Your task to perform on an android device: Go to Maps Image 0: 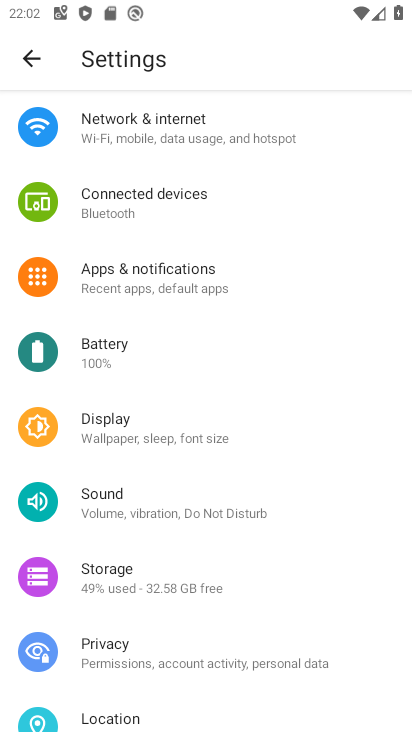
Step 0: press enter
Your task to perform on an android device: Go to Maps Image 1: 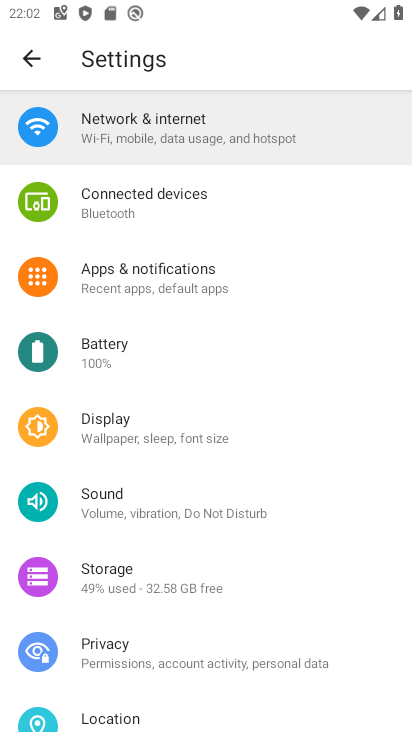
Step 1: press home button
Your task to perform on an android device: Go to Maps Image 2: 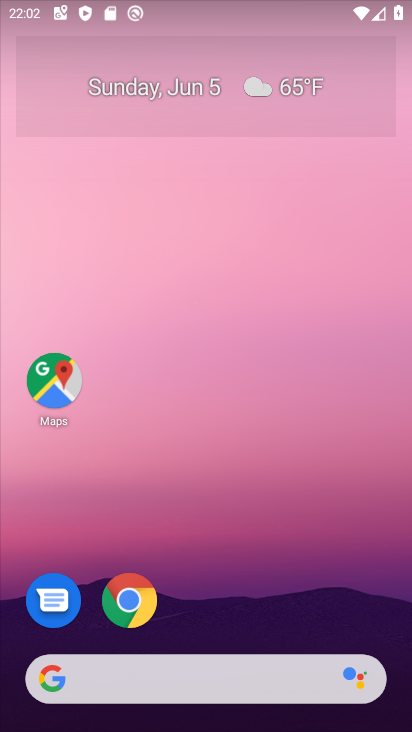
Step 2: click (57, 385)
Your task to perform on an android device: Go to Maps Image 3: 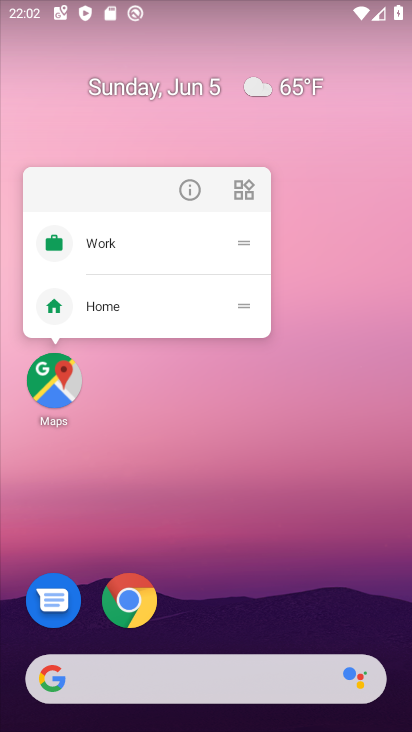
Step 3: click (54, 385)
Your task to perform on an android device: Go to Maps Image 4: 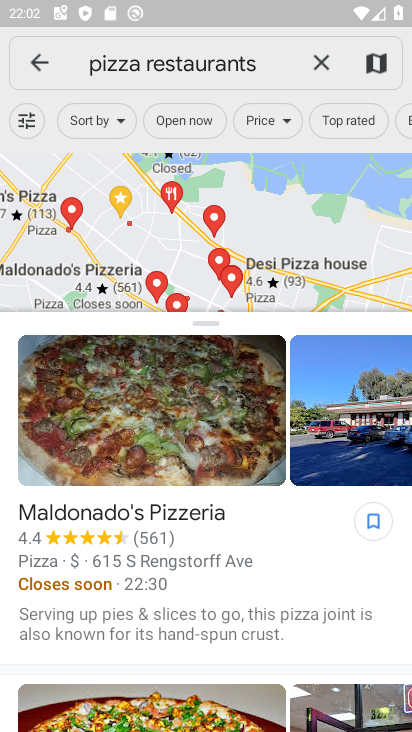
Step 4: task complete